Your task to perform on an android device: turn off sleep mode Image 0: 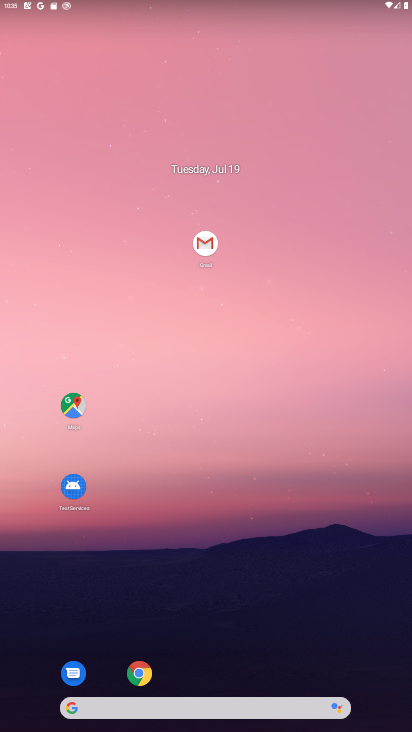
Step 0: drag from (314, 8) to (301, 543)
Your task to perform on an android device: turn off sleep mode Image 1: 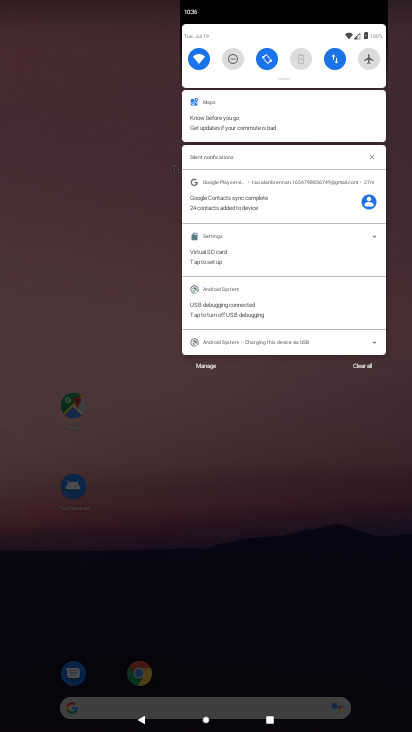
Step 1: drag from (292, 84) to (308, 572)
Your task to perform on an android device: turn off sleep mode Image 2: 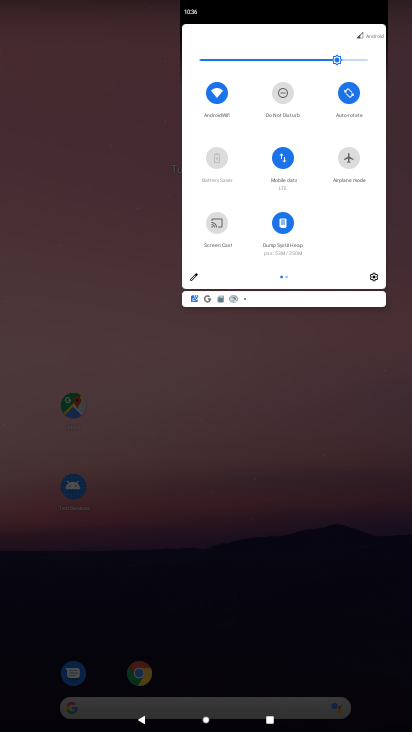
Step 2: click (196, 274)
Your task to perform on an android device: turn off sleep mode Image 3: 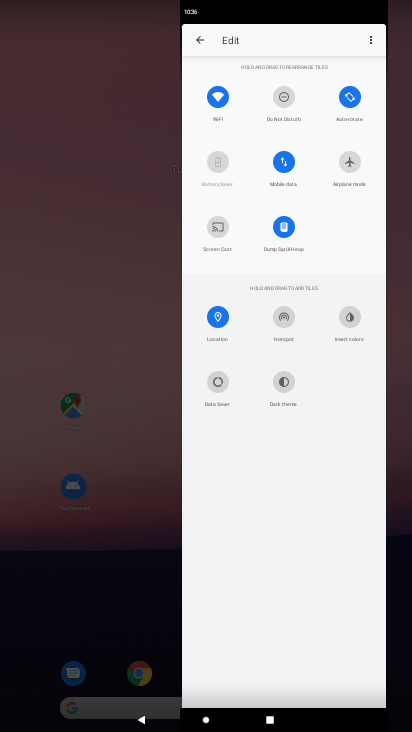
Step 3: task complete